Your task to perform on an android device: Open calendar and show me the third week of next month Image 0: 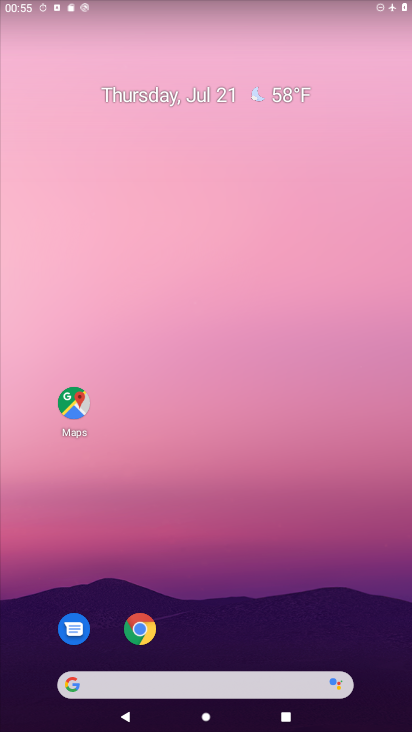
Step 0: drag from (215, 618) to (224, 208)
Your task to perform on an android device: Open calendar and show me the third week of next month Image 1: 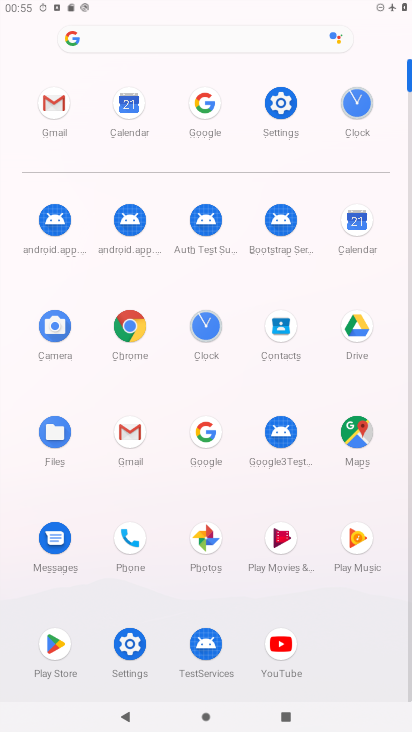
Step 1: click (349, 226)
Your task to perform on an android device: Open calendar and show me the third week of next month Image 2: 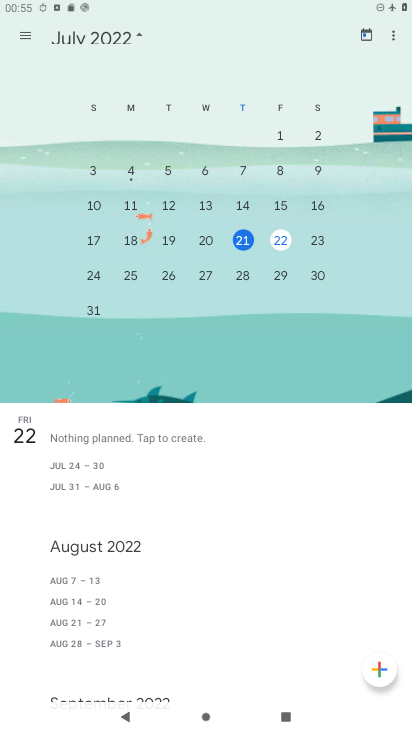
Step 2: drag from (345, 209) to (4, 182)
Your task to perform on an android device: Open calendar and show me the third week of next month Image 3: 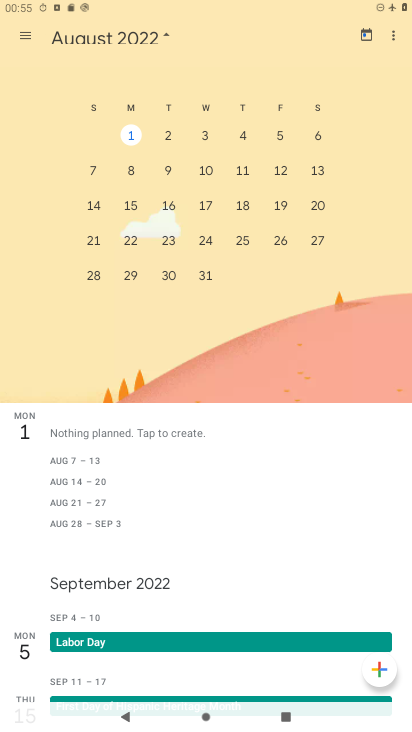
Step 3: click (91, 205)
Your task to perform on an android device: Open calendar and show me the third week of next month Image 4: 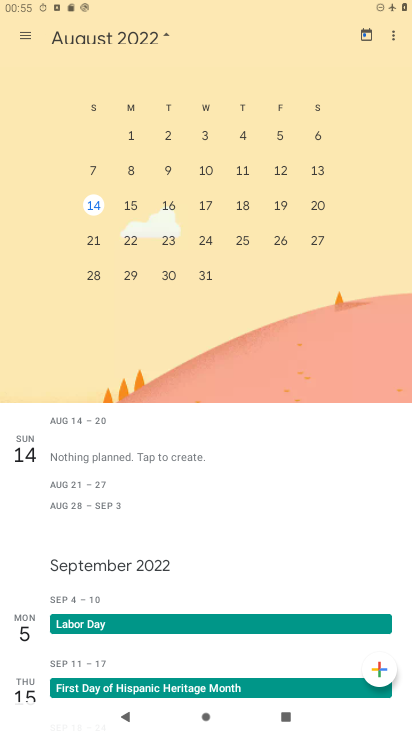
Step 4: task complete